Your task to perform on an android device: Go to Google maps Image 0: 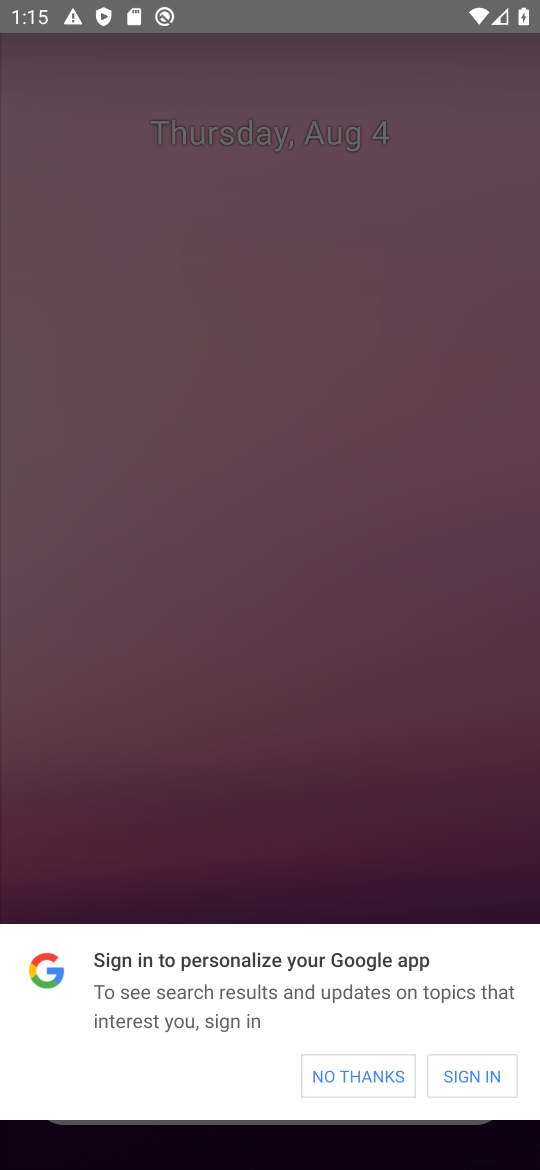
Step 0: click (359, 1083)
Your task to perform on an android device: Go to Google maps Image 1: 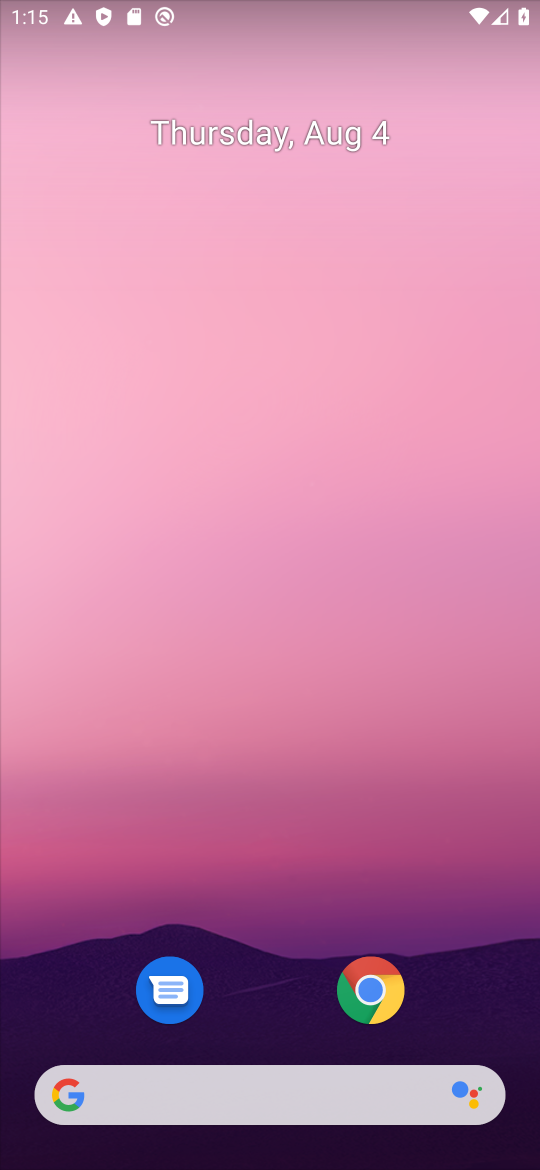
Step 1: drag from (284, 1060) to (362, 128)
Your task to perform on an android device: Go to Google maps Image 2: 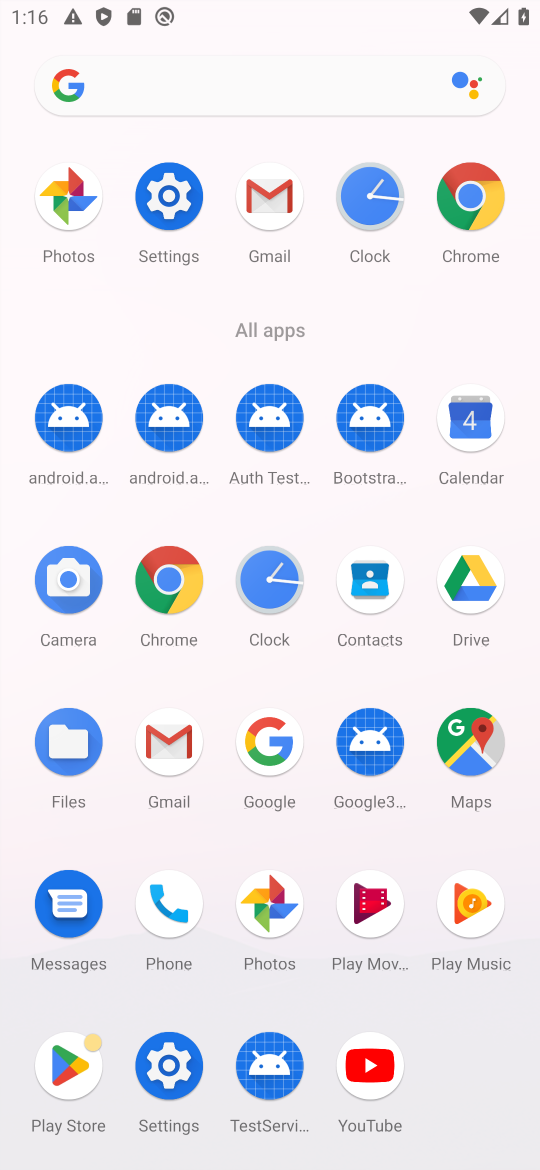
Step 2: click (476, 795)
Your task to perform on an android device: Go to Google maps Image 3: 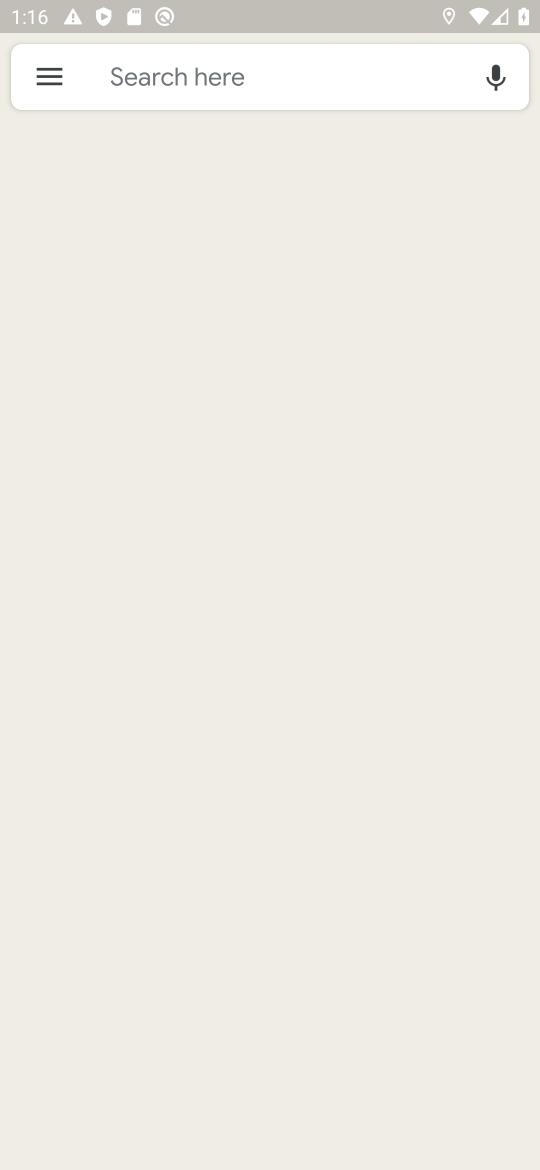
Step 3: task complete